Your task to perform on an android device: Open ESPN.com Image 0: 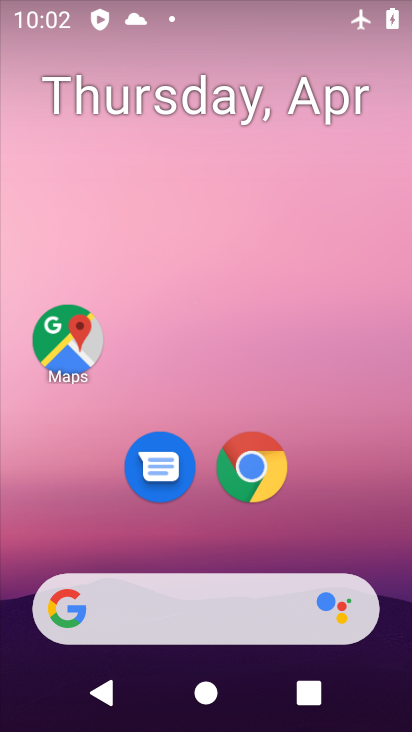
Step 0: click (250, 444)
Your task to perform on an android device: Open ESPN.com Image 1: 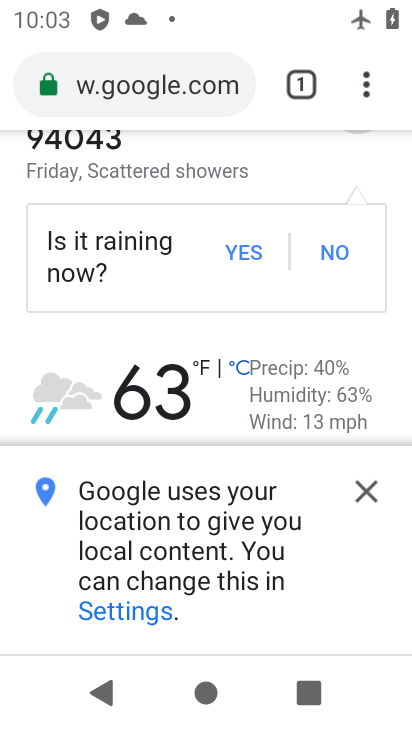
Step 1: click (221, 69)
Your task to perform on an android device: Open ESPN.com Image 2: 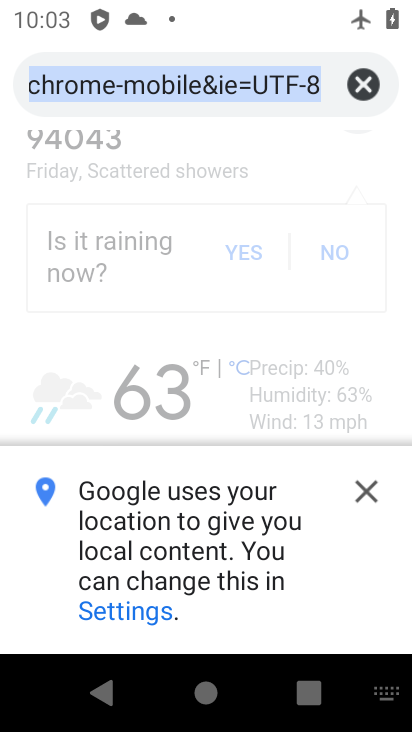
Step 2: click (366, 86)
Your task to perform on an android device: Open ESPN.com Image 3: 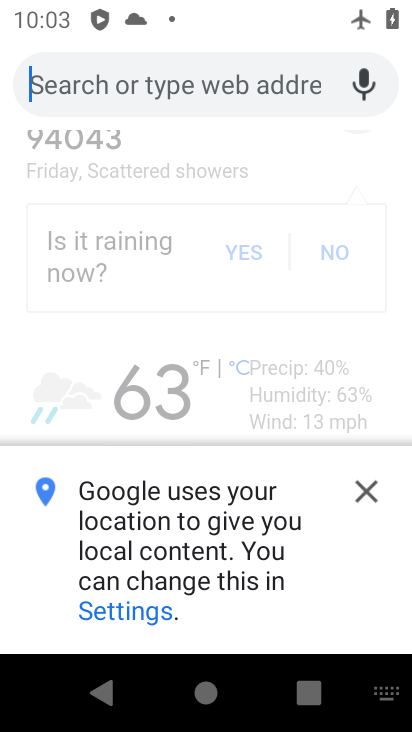
Step 3: type "espn"
Your task to perform on an android device: Open ESPN.com Image 4: 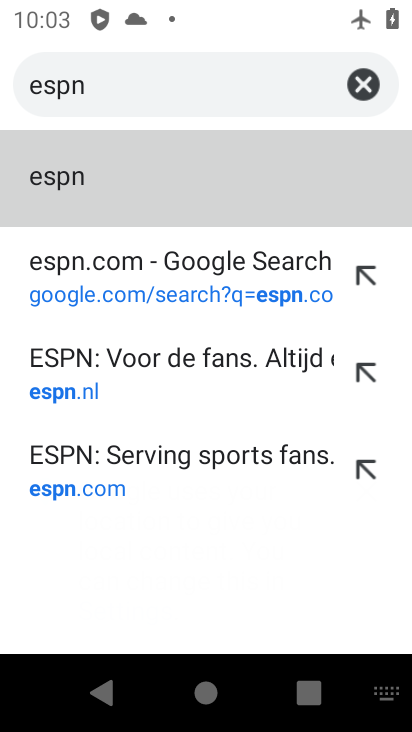
Step 4: click (63, 480)
Your task to perform on an android device: Open ESPN.com Image 5: 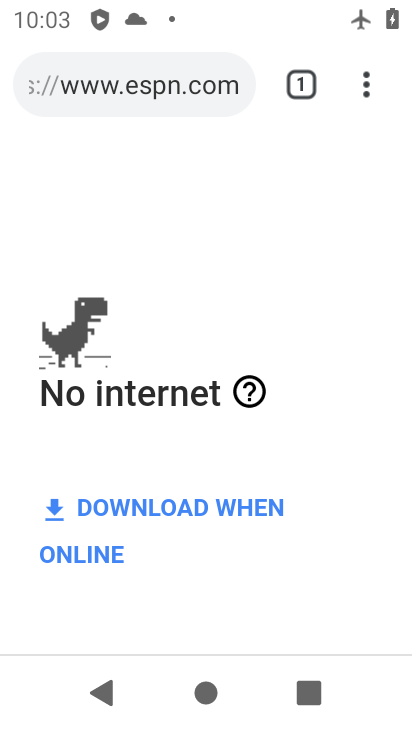
Step 5: task complete